Your task to perform on an android device: allow cookies in the chrome app Image 0: 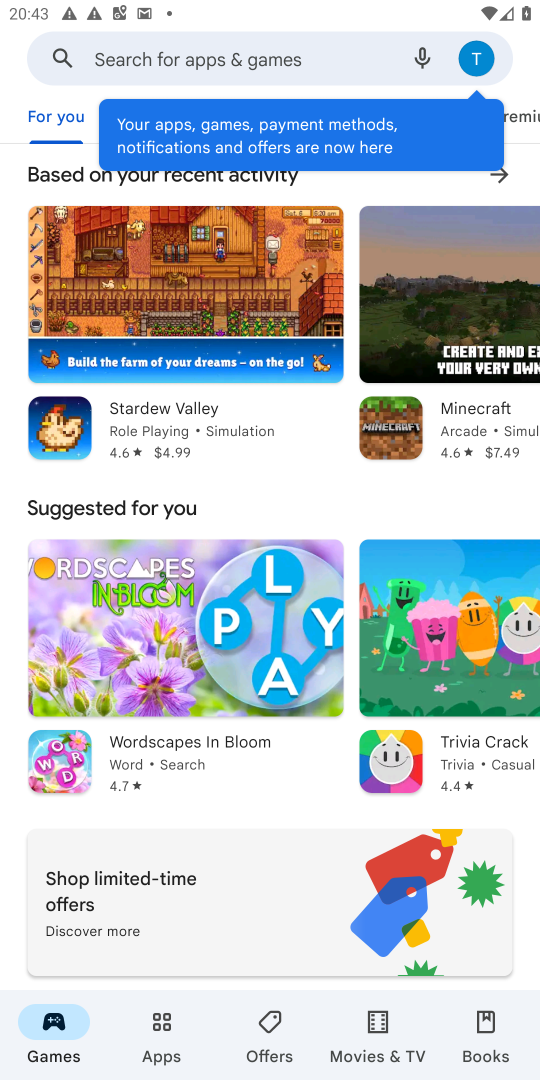
Step 0: press home button
Your task to perform on an android device: allow cookies in the chrome app Image 1: 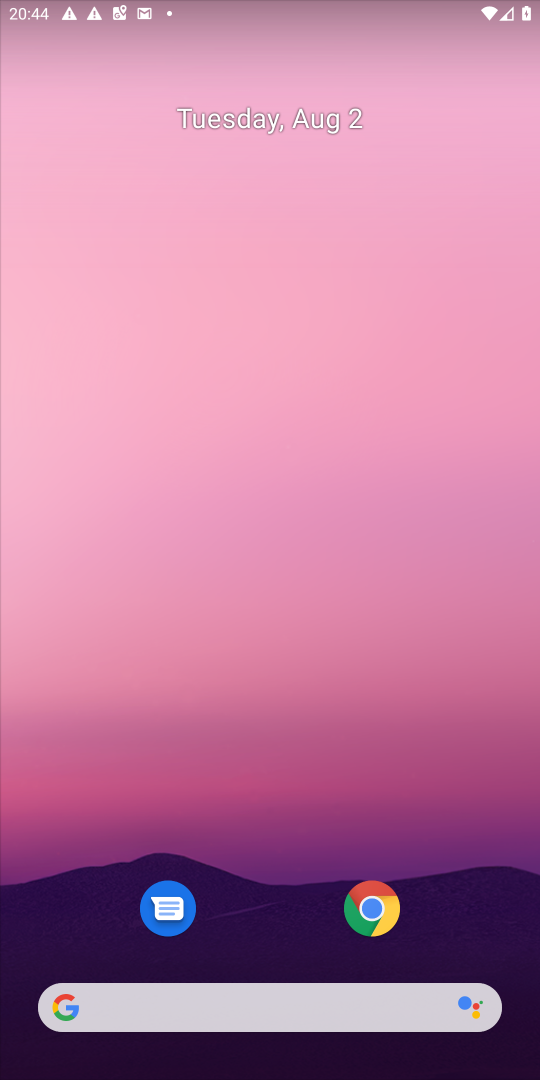
Step 1: click (383, 887)
Your task to perform on an android device: allow cookies in the chrome app Image 2: 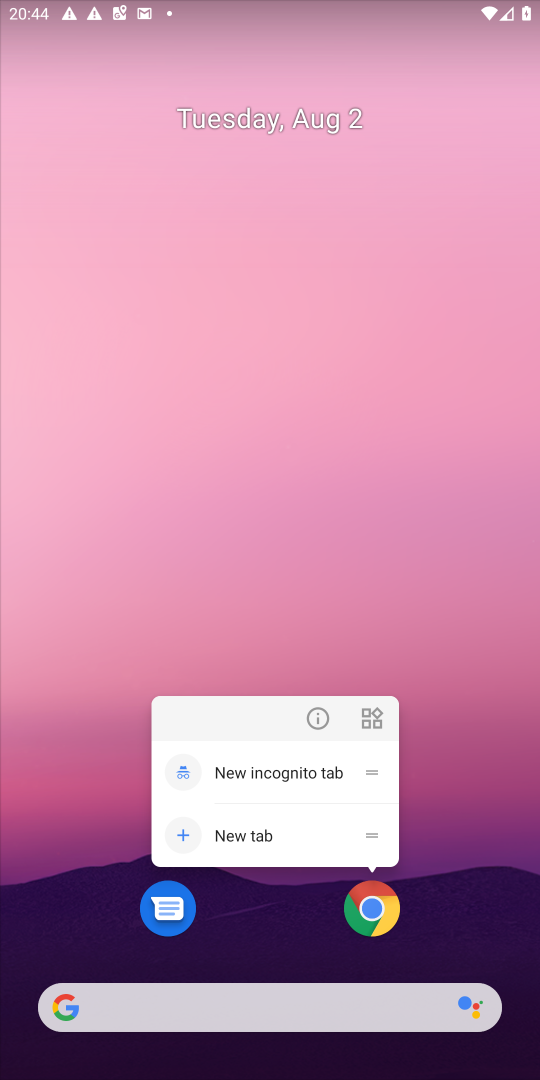
Step 2: click (385, 914)
Your task to perform on an android device: allow cookies in the chrome app Image 3: 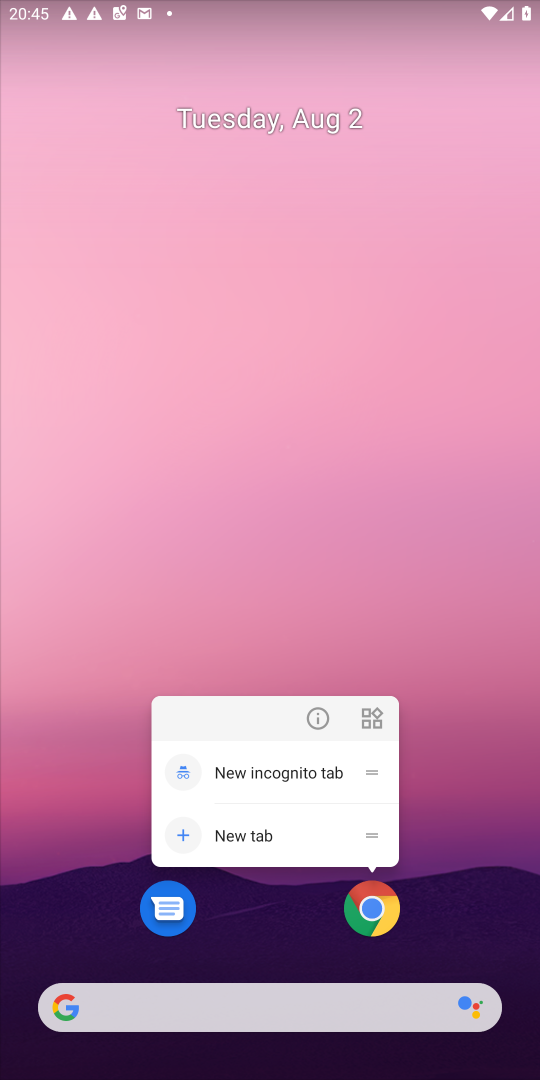
Step 3: click (385, 914)
Your task to perform on an android device: allow cookies in the chrome app Image 4: 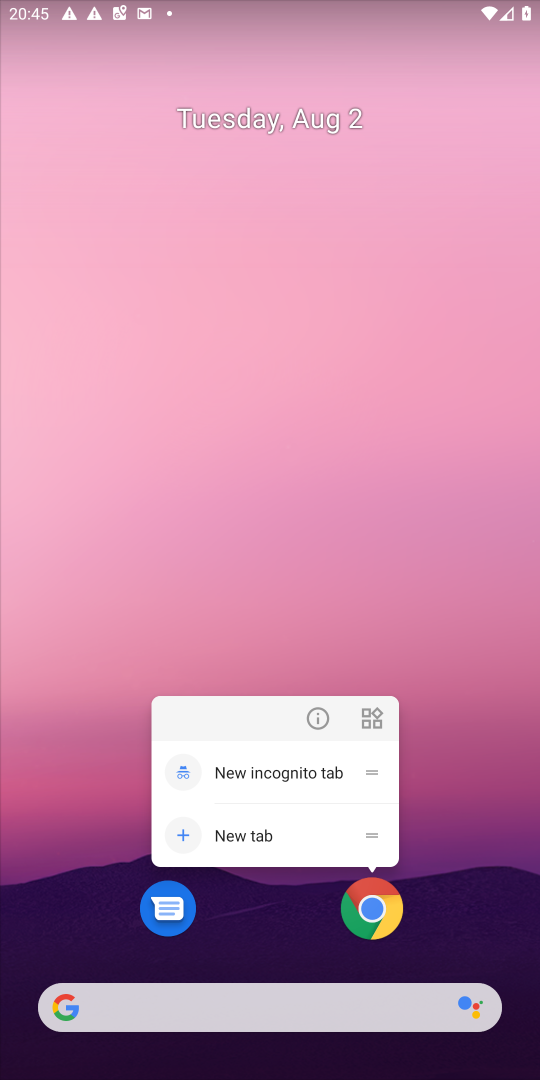
Step 4: click (385, 914)
Your task to perform on an android device: allow cookies in the chrome app Image 5: 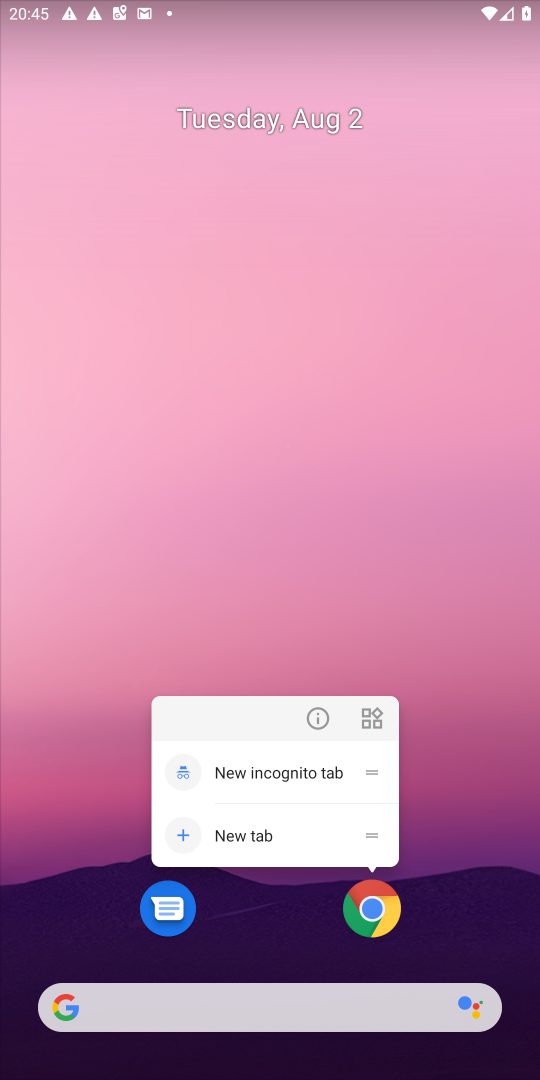
Step 5: click (385, 914)
Your task to perform on an android device: allow cookies in the chrome app Image 6: 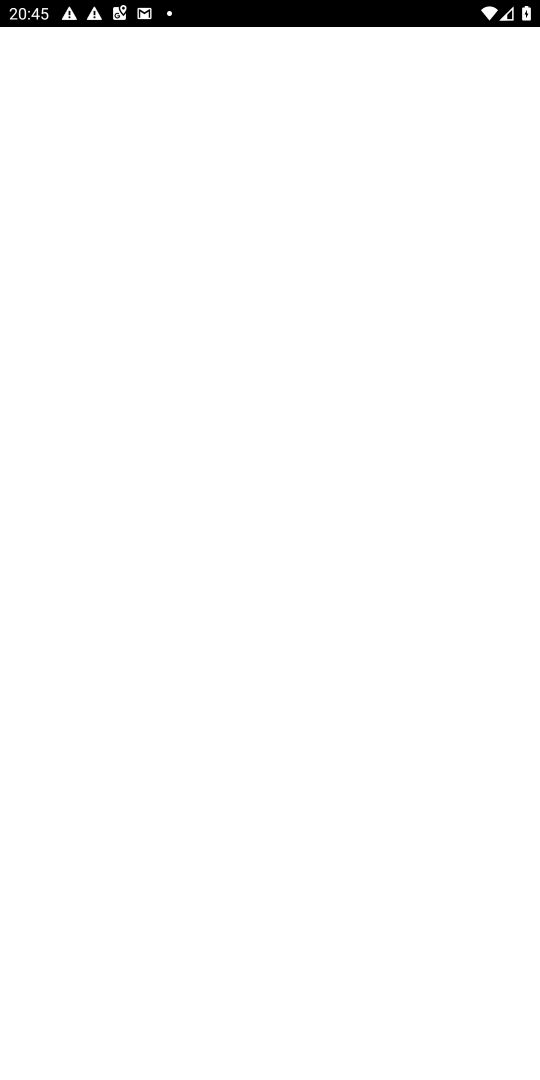
Step 6: click (385, 914)
Your task to perform on an android device: allow cookies in the chrome app Image 7: 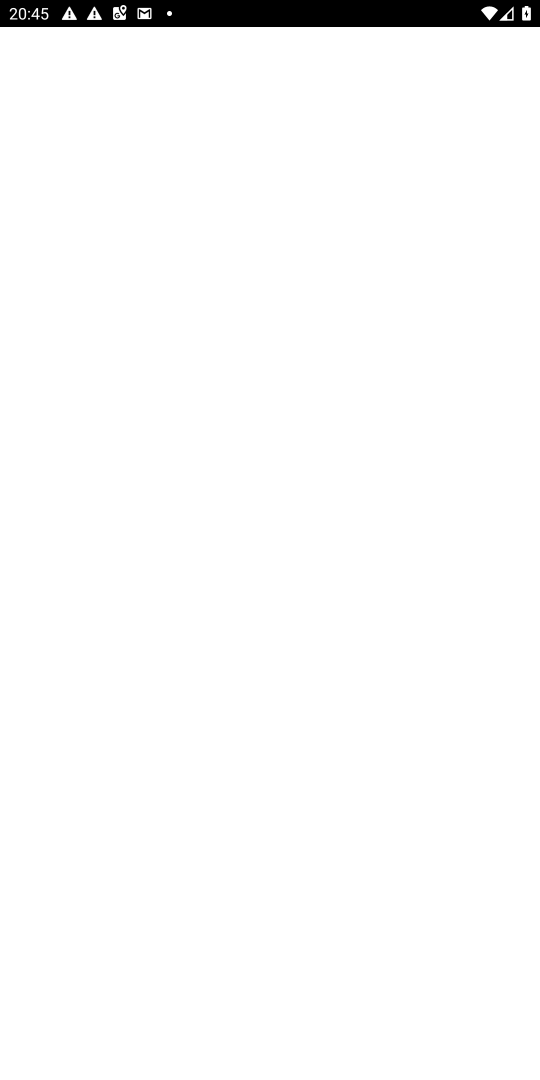
Step 7: click (385, 914)
Your task to perform on an android device: allow cookies in the chrome app Image 8: 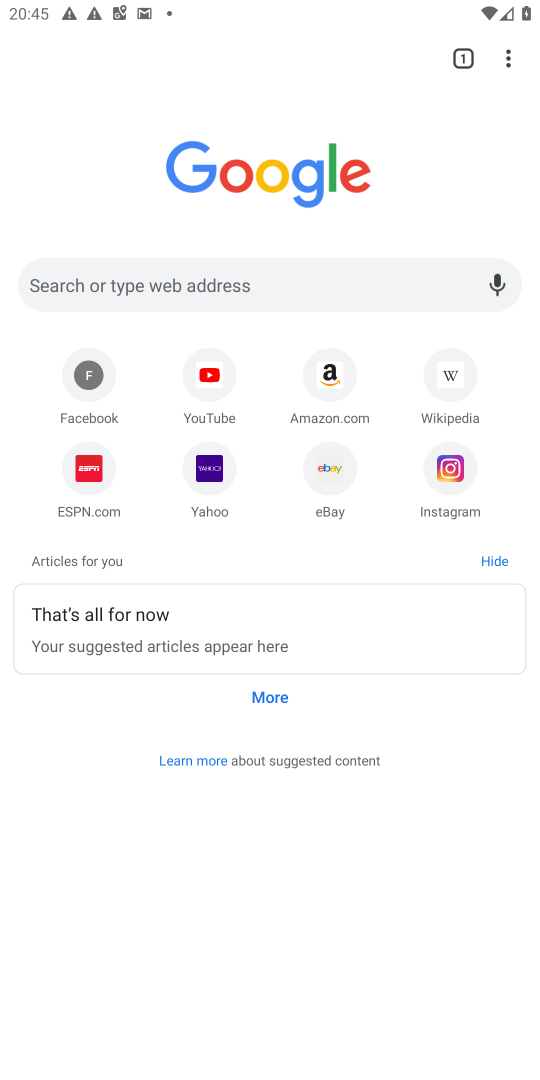
Step 8: click (498, 52)
Your task to perform on an android device: allow cookies in the chrome app Image 9: 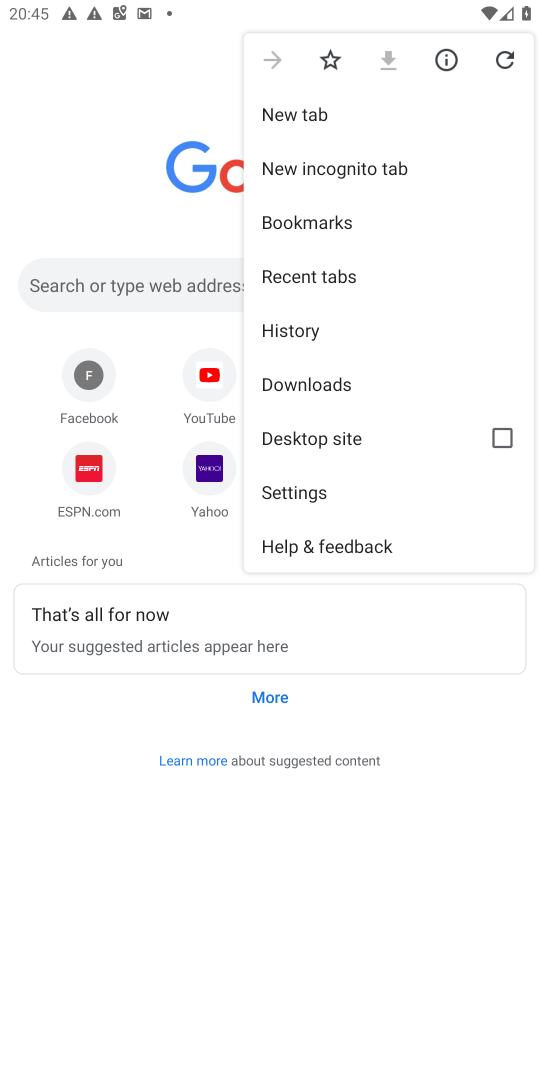
Step 9: click (329, 509)
Your task to perform on an android device: allow cookies in the chrome app Image 10: 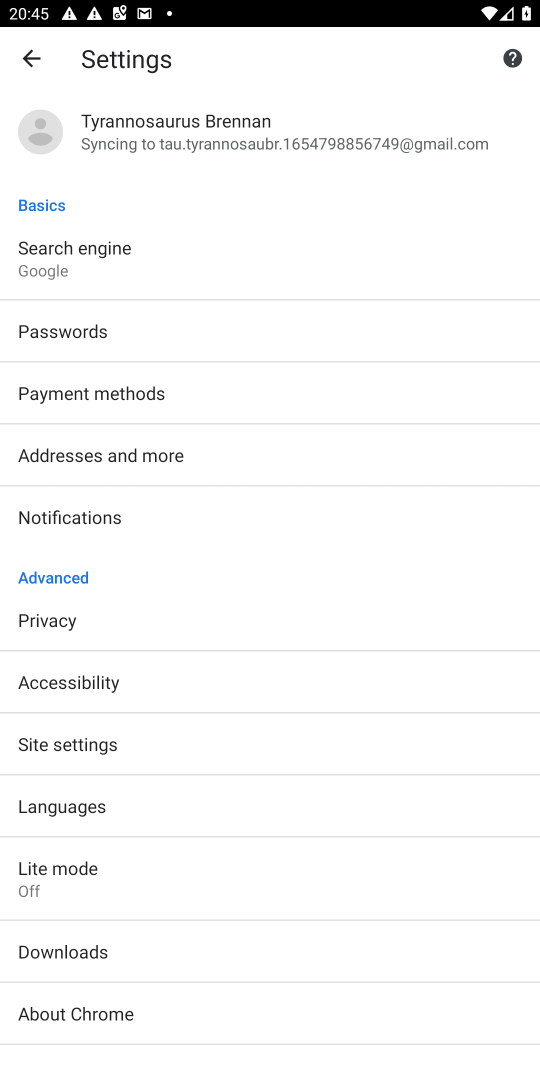
Step 10: click (105, 722)
Your task to perform on an android device: allow cookies in the chrome app Image 11: 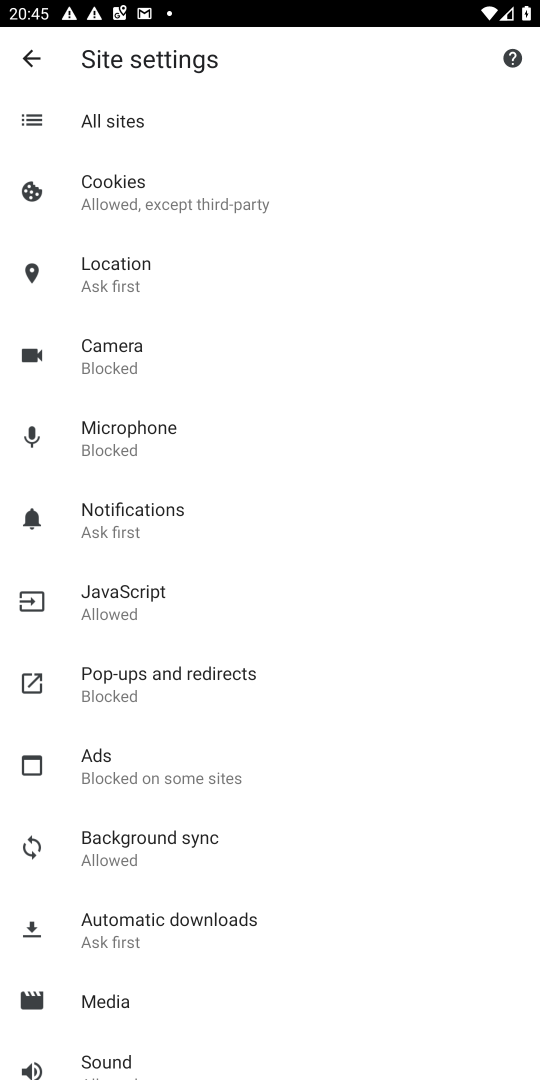
Step 11: click (144, 190)
Your task to perform on an android device: allow cookies in the chrome app Image 12: 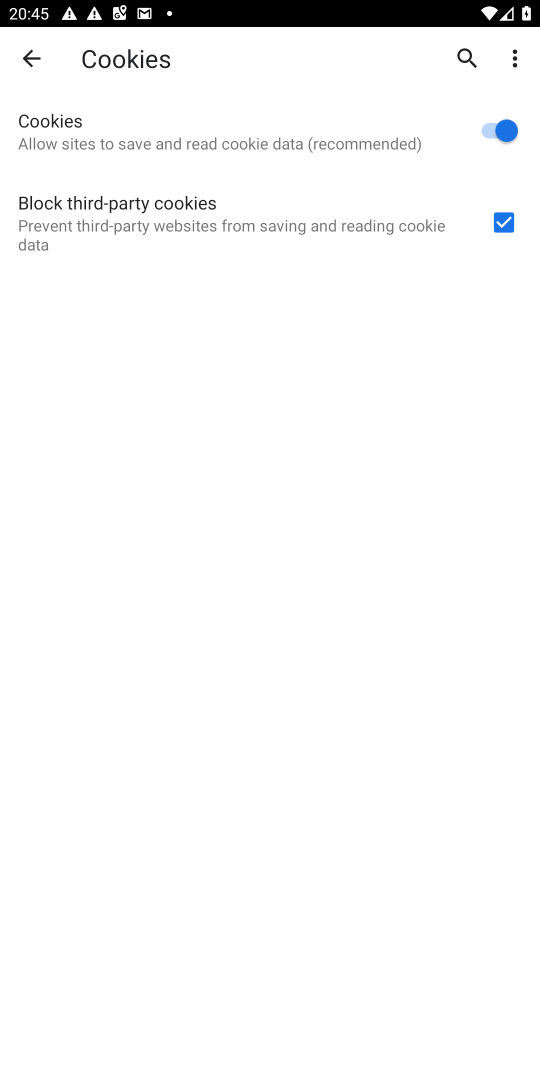
Step 12: task complete